Your task to perform on an android device: Go to battery settings Image 0: 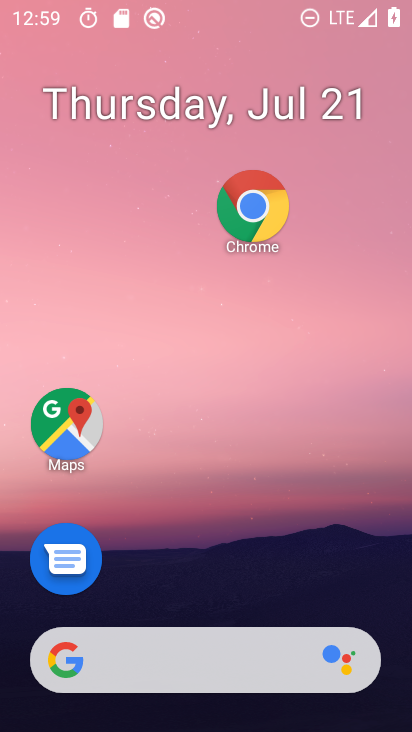
Step 0: press home button
Your task to perform on an android device: Go to battery settings Image 1: 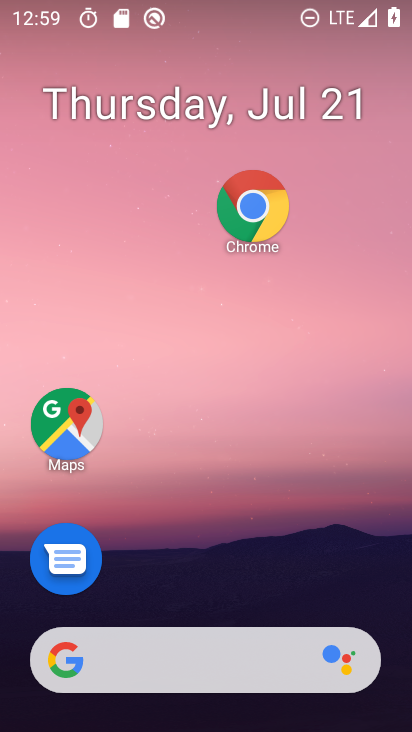
Step 1: drag from (133, 9) to (68, 1)
Your task to perform on an android device: Go to battery settings Image 2: 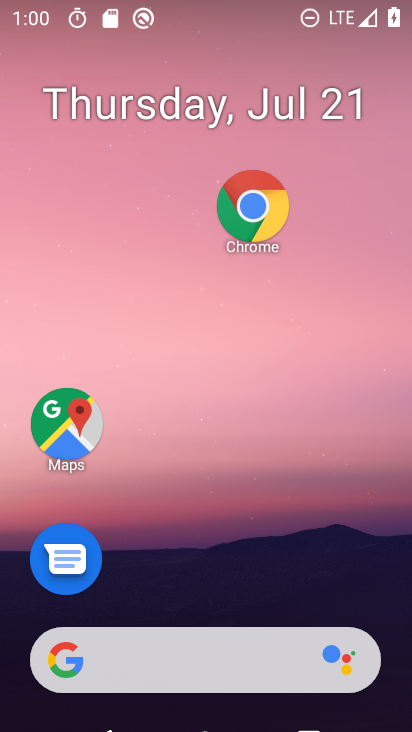
Step 2: drag from (269, 611) to (395, 370)
Your task to perform on an android device: Go to battery settings Image 3: 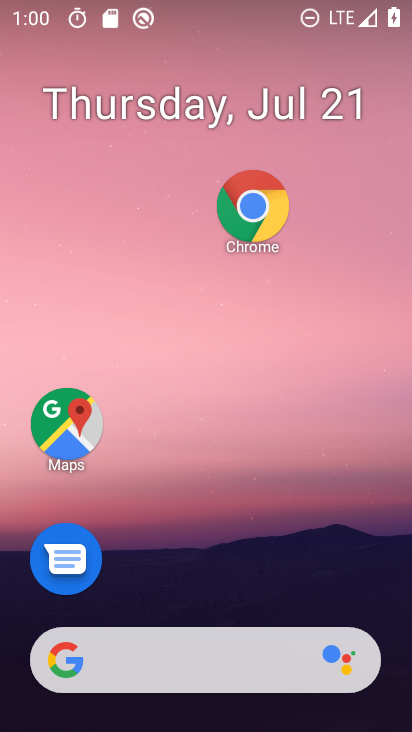
Step 3: click (64, 190)
Your task to perform on an android device: Go to battery settings Image 4: 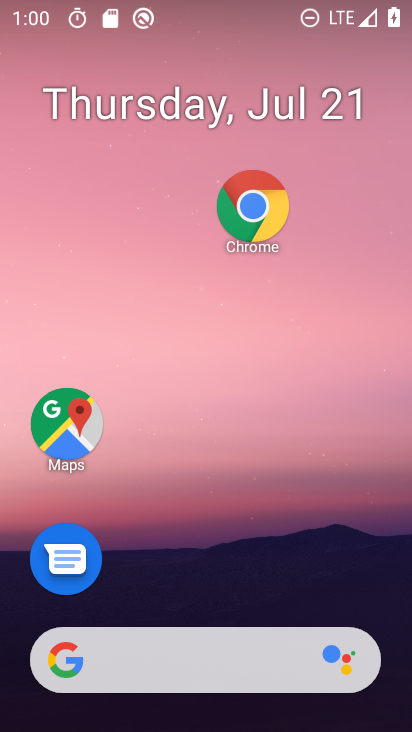
Step 4: drag from (190, 663) to (240, 100)
Your task to perform on an android device: Go to battery settings Image 5: 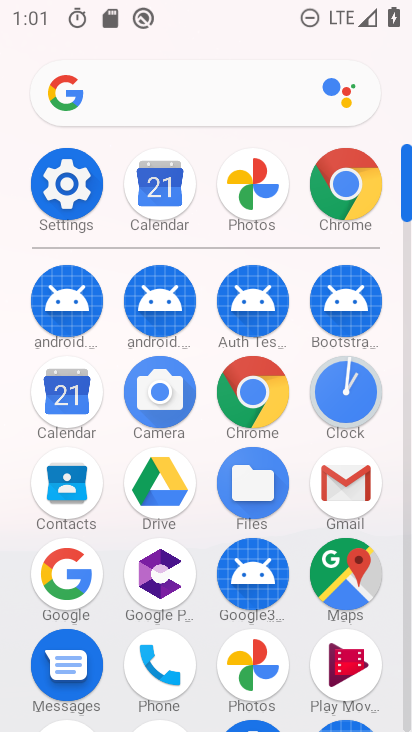
Step 5: click (79, 190)
Your task to perform on an android device: Go to battery settings Image 6: 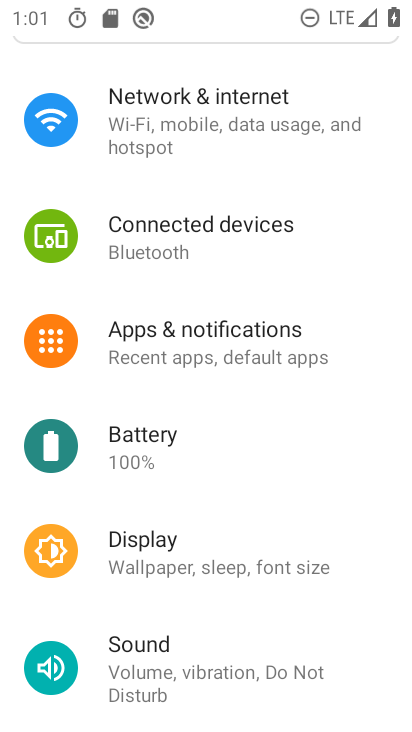
Step 6: click (165, 448)
Your task to perform on an android device: Go to battery settings Image 7: 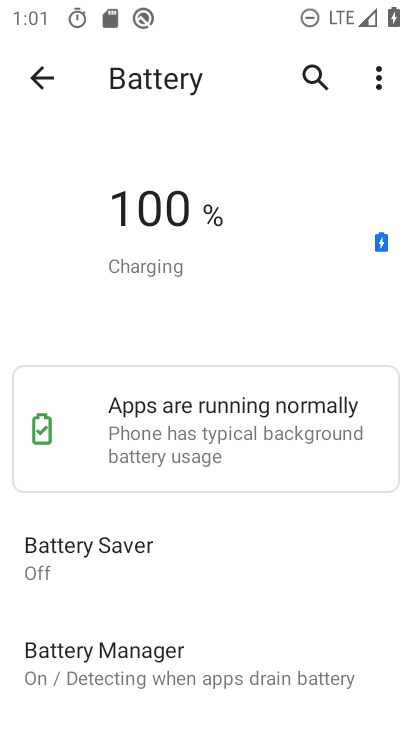
Step 7: task complete